Your task to perform on an android device: Open calendar and show me the fourth week of next month Image 0: 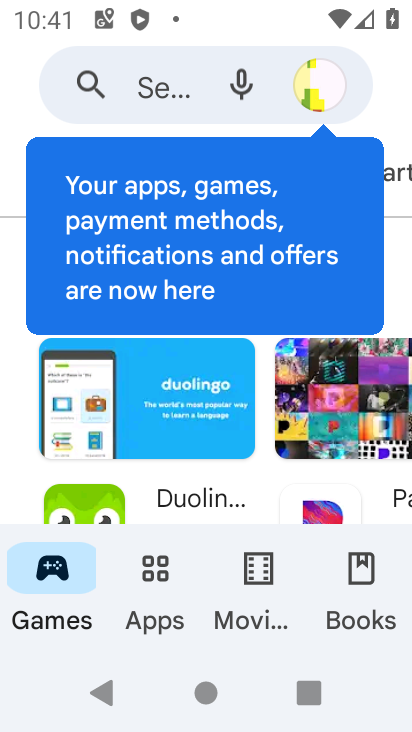
Step 0: press home button
Your task to perform on an android device: Open calendar and show me the fourth week of next month Image 1: 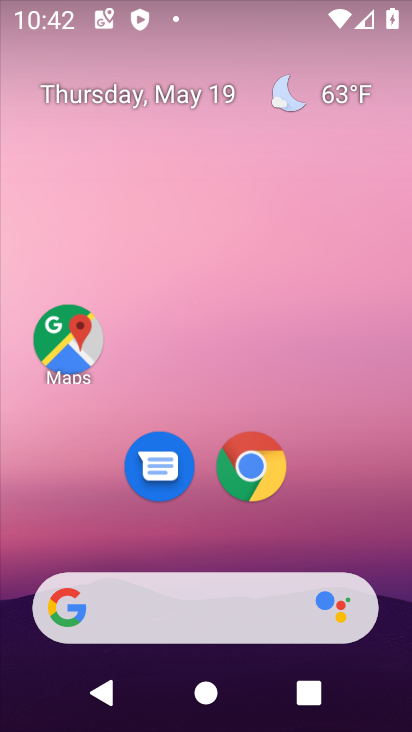
Step 1: drag from (385, 613) to (250, 84)
Your task to perform on an android device: Open calendar and show me the fourth week of next month Image 2: 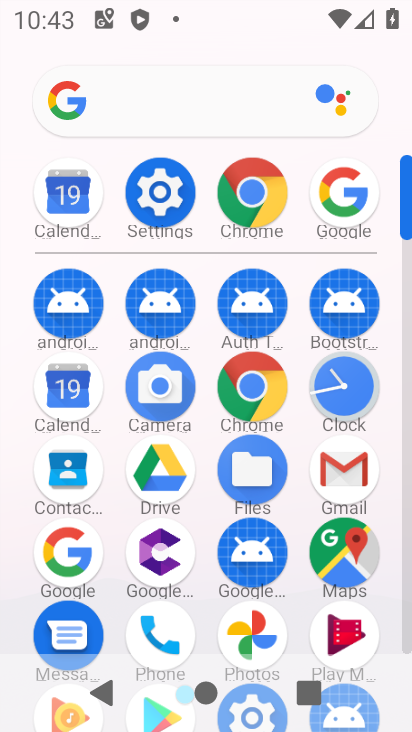
Step 2: click (46, 384)
Your task to perform on an android device: Open calendar and show me the fourth week of next month Image 3: 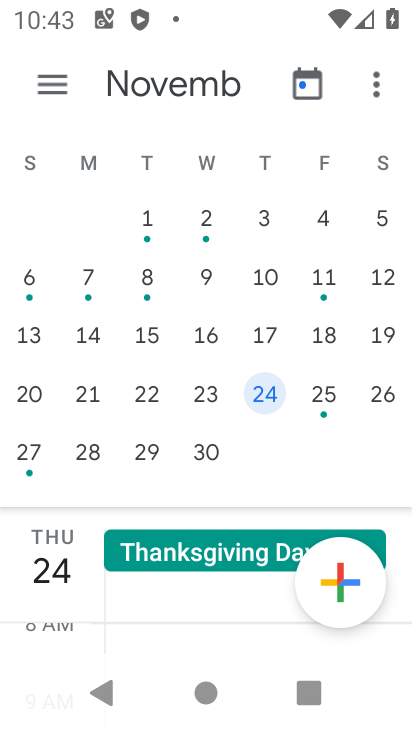
Step 3: drag from (349, 340) to (30, 341)
Your task to perform on an android device: Open calendar and show me the fourth week of next month Image 4: 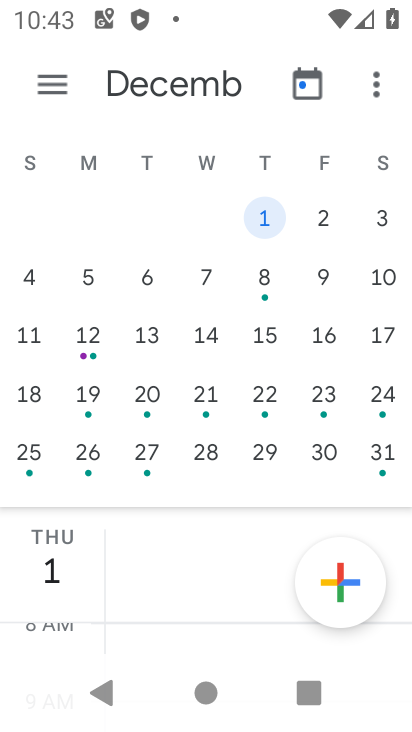
Step 4: click (93, 457)
Your task to perform on an android device: Open calendar and show me the fourth week of next month Image 5: 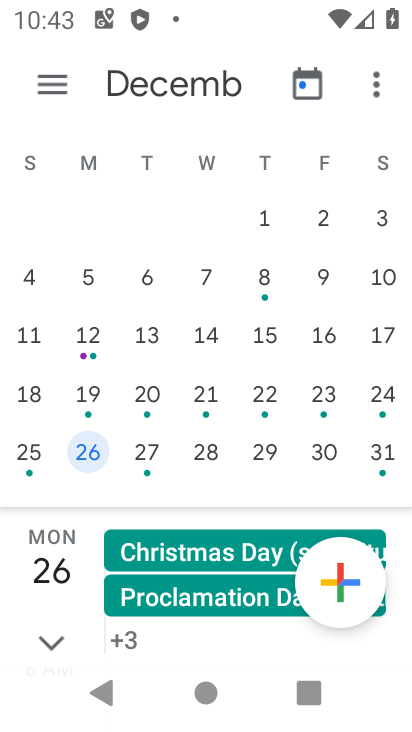
Step 5: task complete